Your task to perform on an android device: When is my next appointment? Image 0: 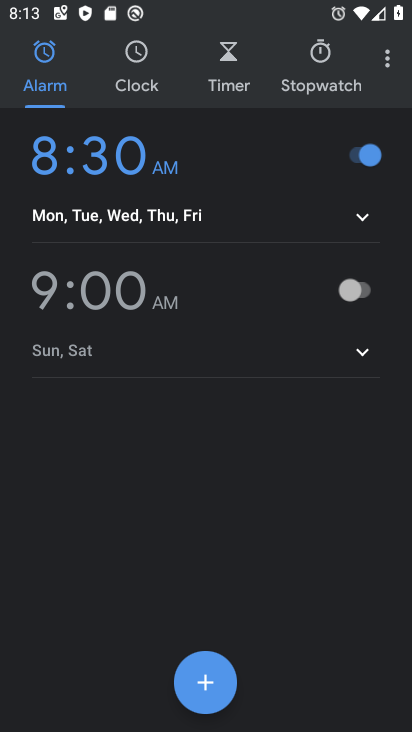
Step 0: press back button
Your task to perform on an android device: When is my next appointment? Image 1: 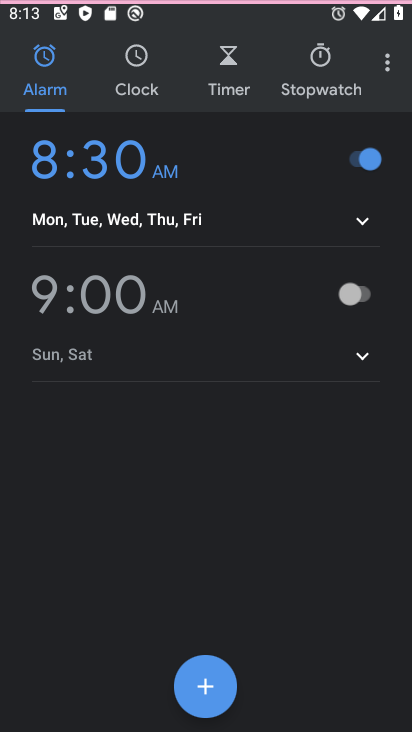
Step 1: press home button
Your task to perform on an android device: When is my next appointment? Image 2: 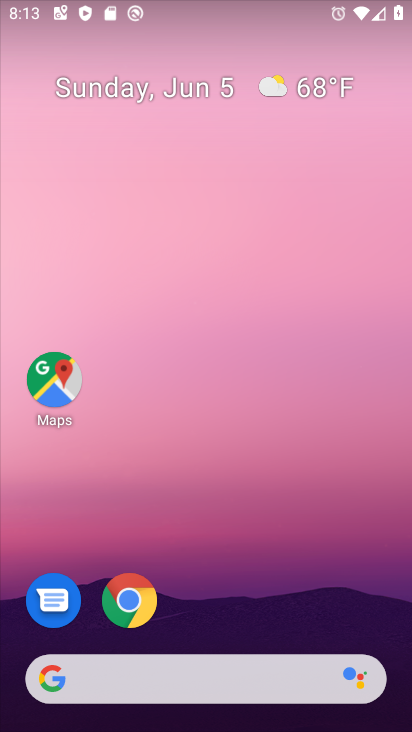
Step 2: drag from (381, 632) to (354, 404)
Your task to perform on an android device: When is my next appointment? Image 3: 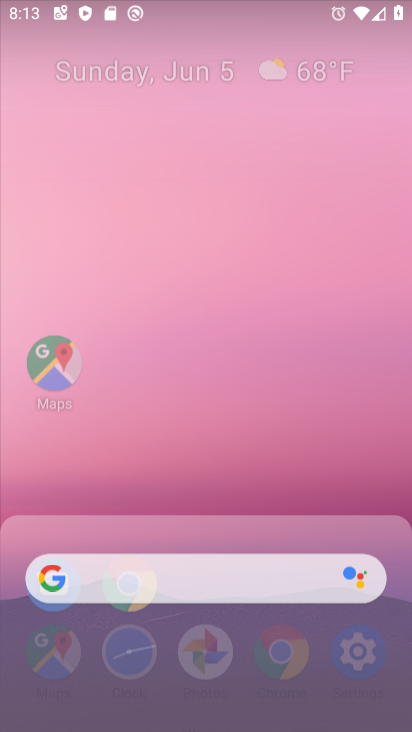
Step 3: click (253, 38)
Your task to perform on an android device: When is my next appointment? Image 4: 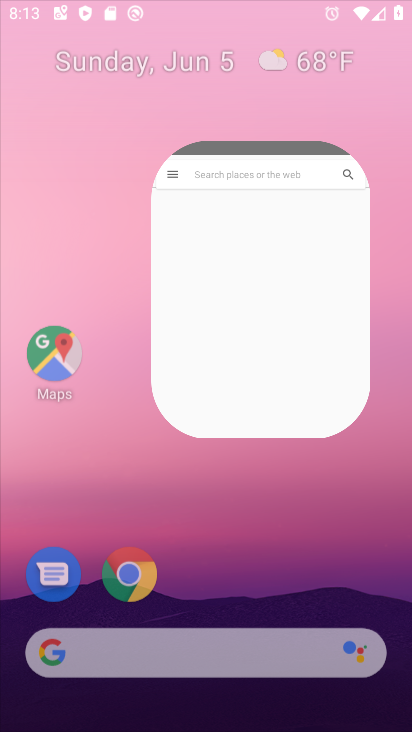
Step 4: drag from (404, 613) to (289, 11)
Your task to perform on an android device: When is my next appointment? Image 5: 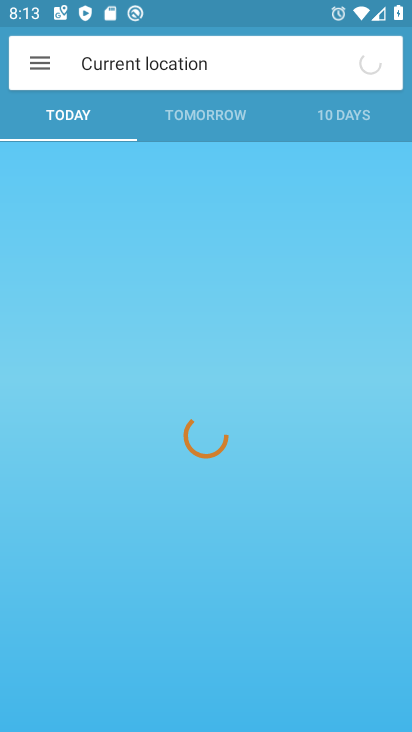
Step 5: press back button
Your task to perform on an android device: When is my next appointment? Image 6: 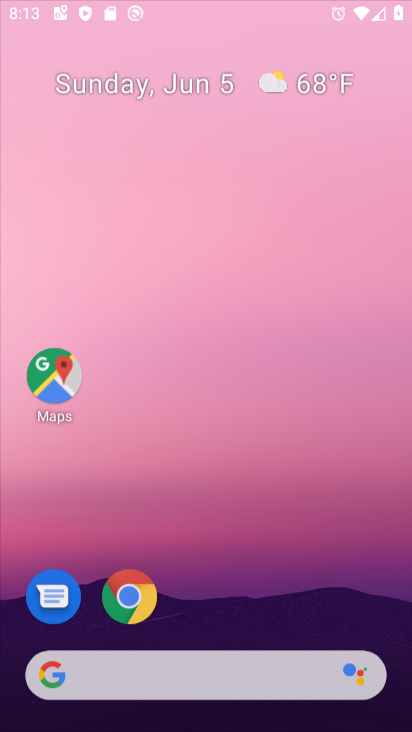
Step 6: press back button
Your task to perform on an android device: When is my next appointment? Image 7: 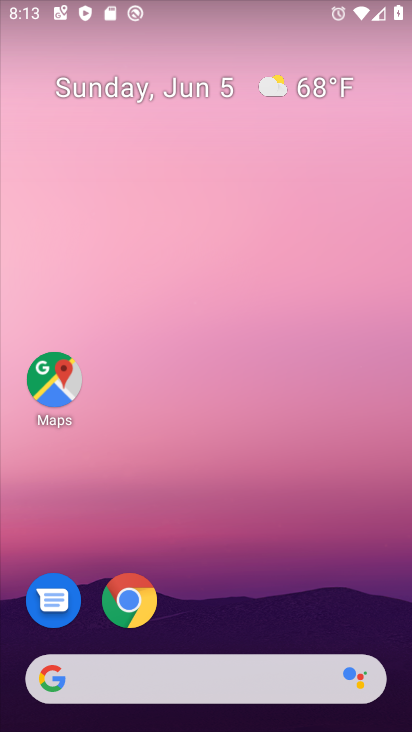
Step 7: drag from (392, 334) to (312, 64)
Your task to perform on an android device: When is my next appointment? Image 8: 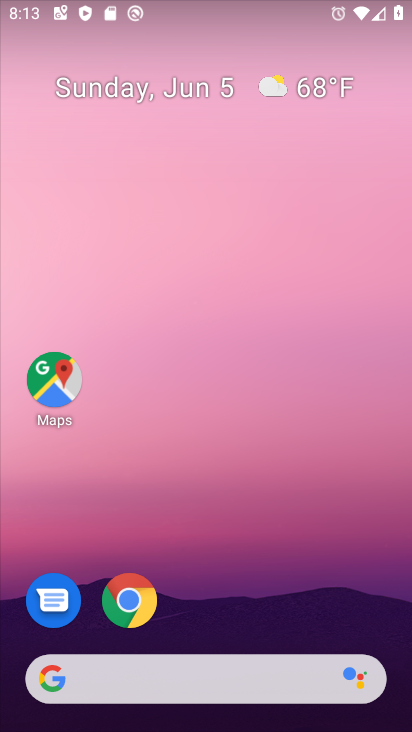
Step 8: drag from (392, 659) to (408, 528)
Your task to perform on an android device: When is my next appointment? Image 9: 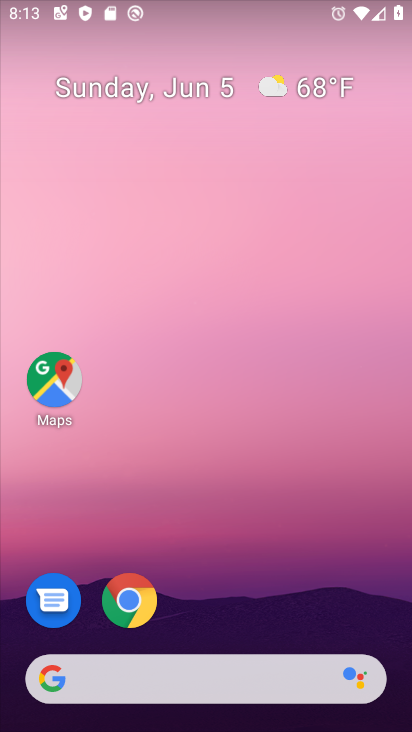
Step 9: drag from (406, 639) to (232, 27)
Your task to perform on an android device: When is my next appointment? Image 10: 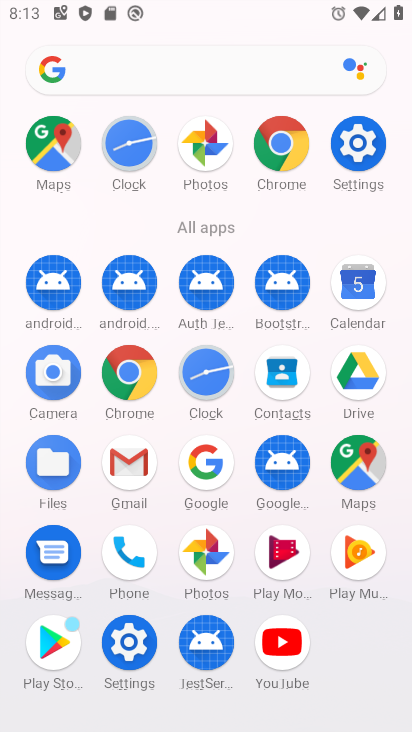
Step 10: click (364, 289)
Your task to perform on an android device: When is my next appointment? Image 11: 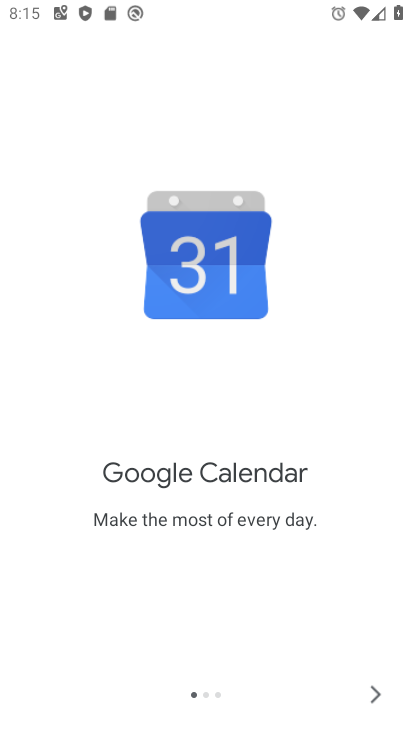
Step 11: click (377, 694)
Your task to perform on an android device: When is my next appointment? Image 12: 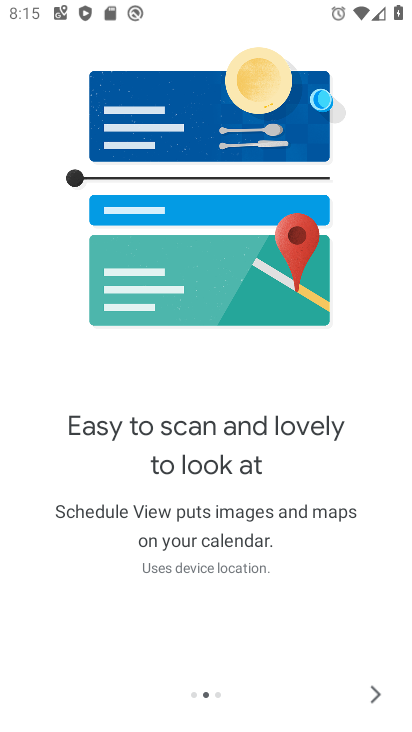
Step 12: click (377, 694)
Your task to perform on an android device: When is my next appointment? Image 13: 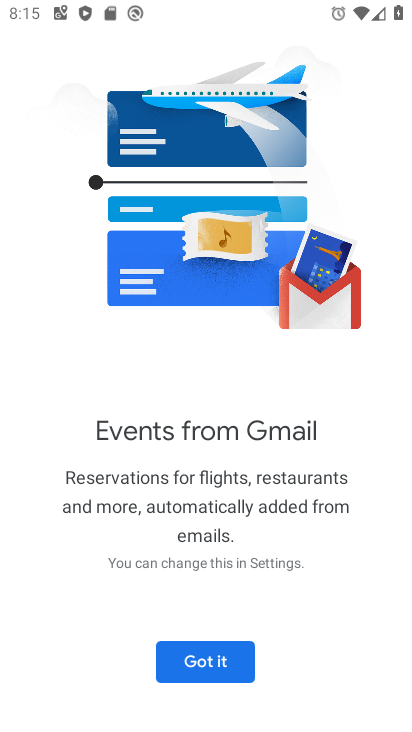
Step 13: click (377, 694)
Your task to perform on an android device: When is my next appointment? Image 14: 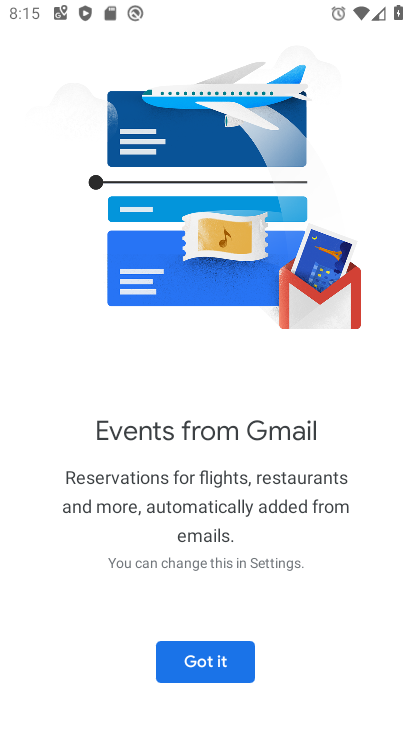
Step 14: click (225, 673)
Your task to perform on an android device: When is my next appointment? Image 15: 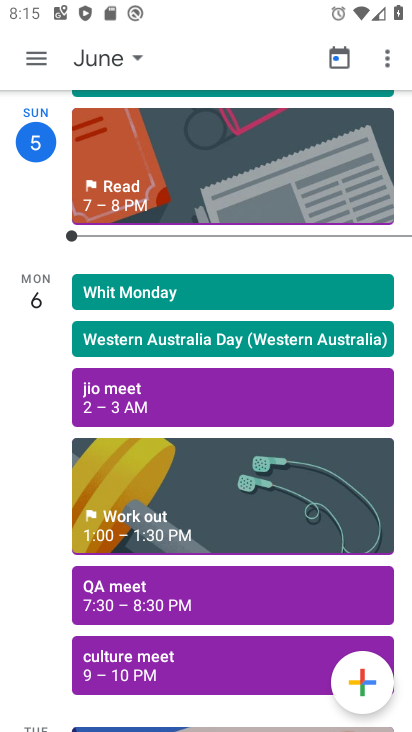
Step 15: task complete